Your task to perform on an android device: install app "Lyft - Rideshare, Bikes, Scooters & Transit" Image 0: 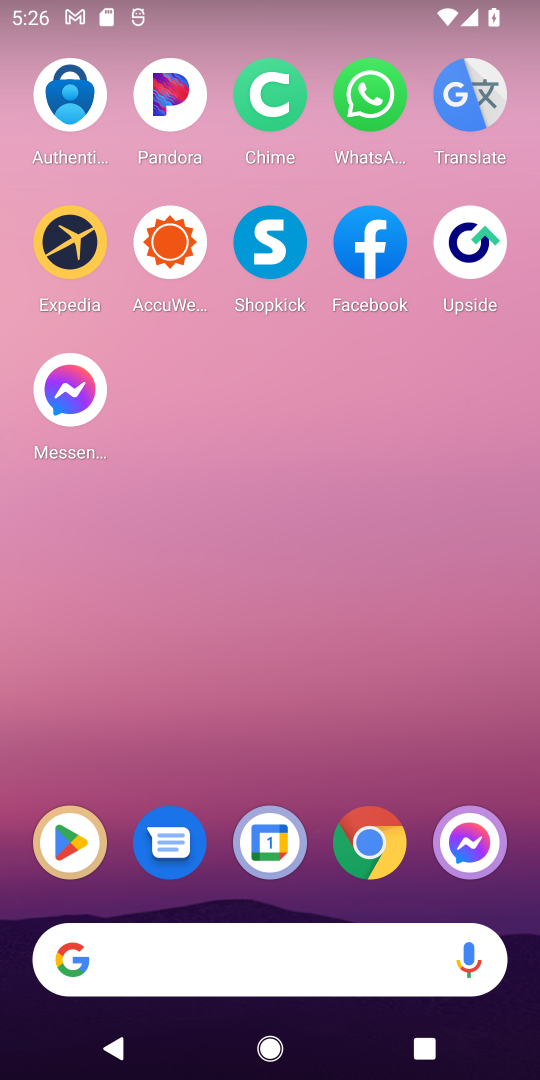
Step 0: drag from (372, 1000) to (299, 116)
Your task to perform on an android device: install app "Lyft - Rideshare, Bikes, Scooters & Transit" Image 1: 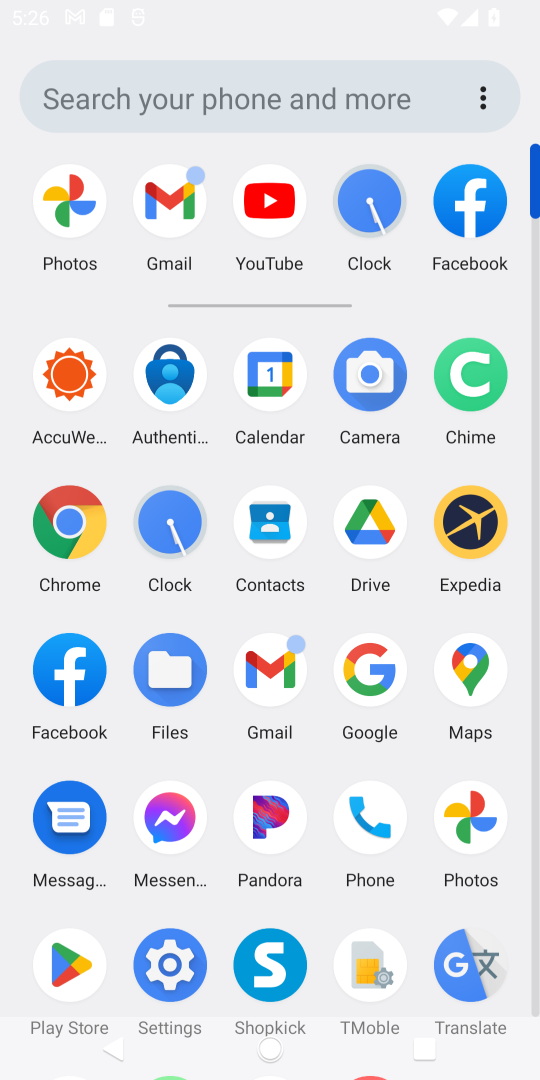
Step 1: drag from (438, 877) to (429, 364)
Your task to perform on an android device: install app "Lyft - Rideshare, Bikes, Scooters & Transit" Image 2: 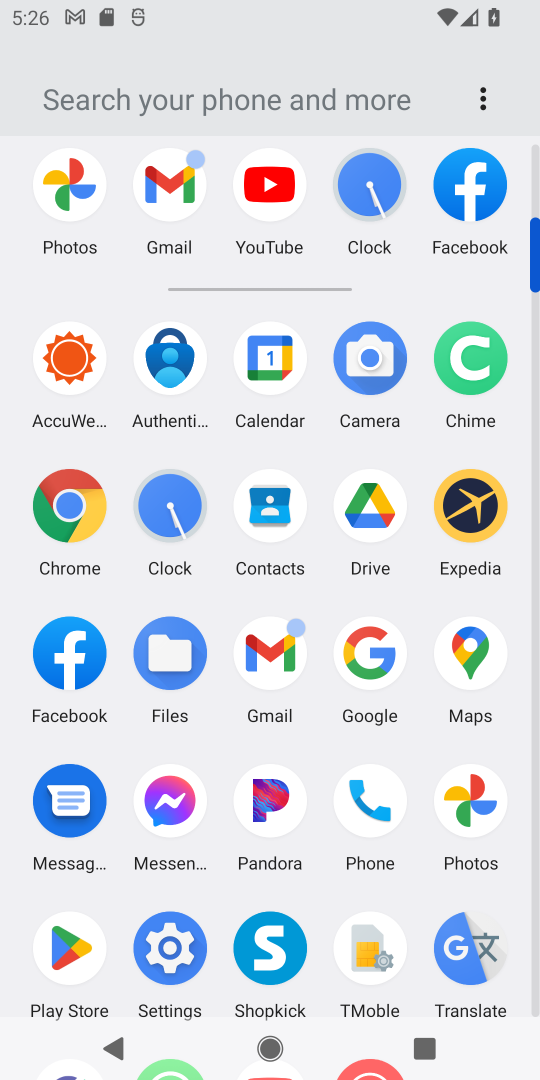
Step 2: drag from (417, 596) to (426, 398)
Your task to perform on an android device: install app "Lyft - Rideshare, Bikes, Scooters & Transit" Image 3: 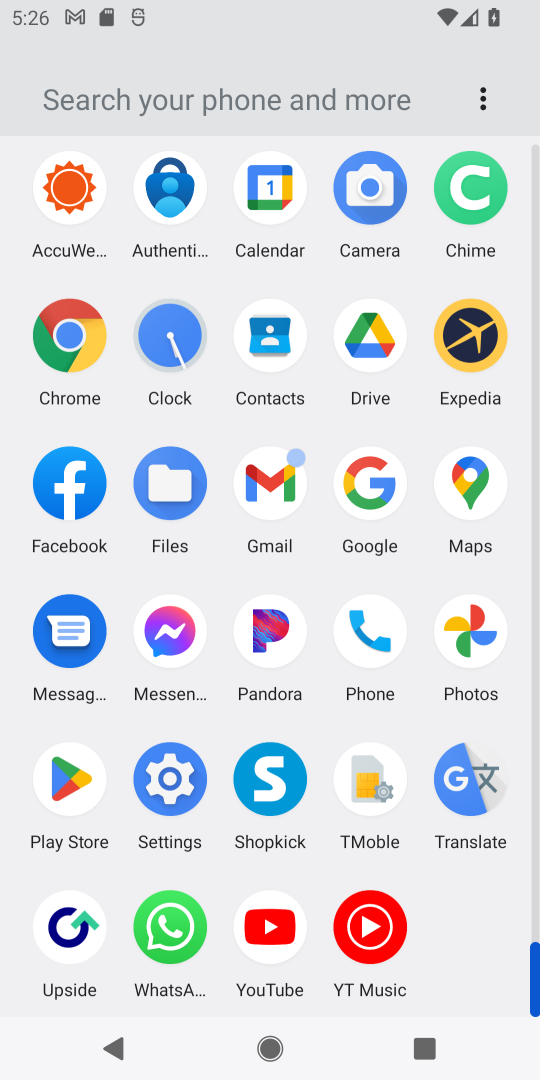
Step 3: drag from (426, 761) to (464, 294)
Your task to perform on an android device: install app "Lyft - Rideshare, Bikes, Scooters & Transit" Image 4: 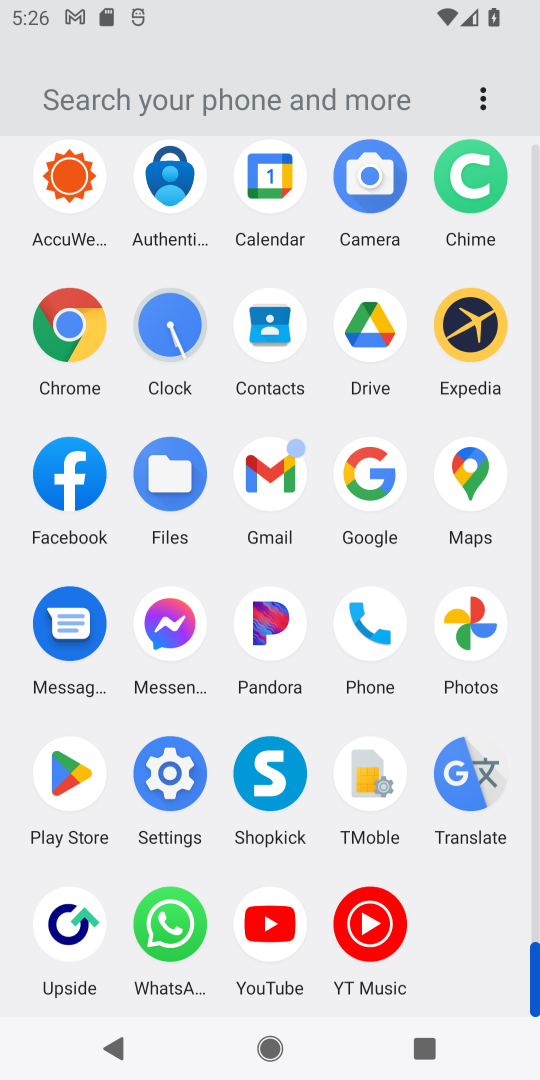
Step 4: drag from (437, 444) to (444, 328)
Your task to perform on an android device: install app "Lyft - Rideshare, Bikes, Scooters & Transit" Image 5: 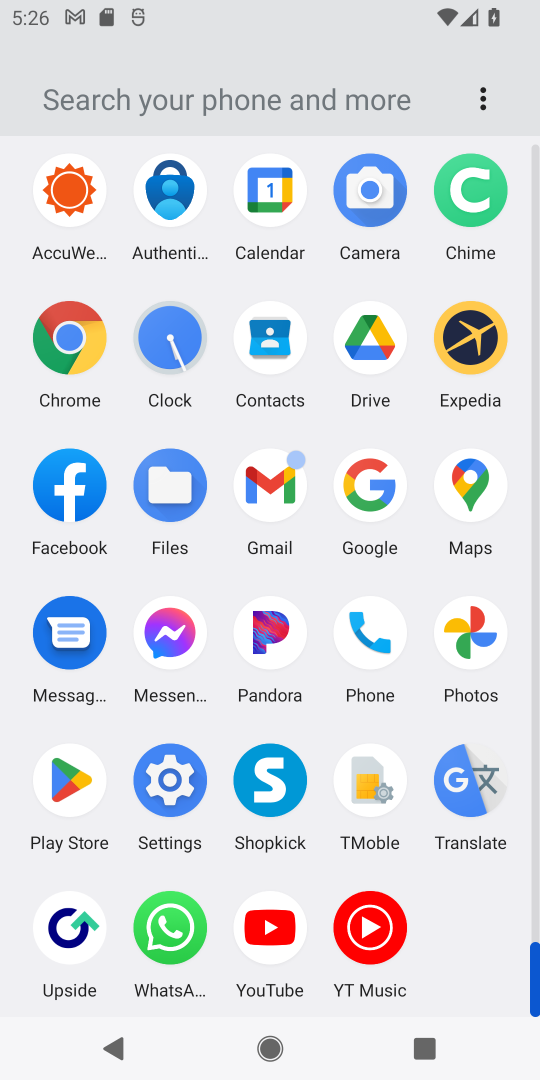
Step 5: click (56, 773)
Your task to perform on an android device: install app "Lyft - Rideshare, Bikes, Scooters & Transit" Image 6: 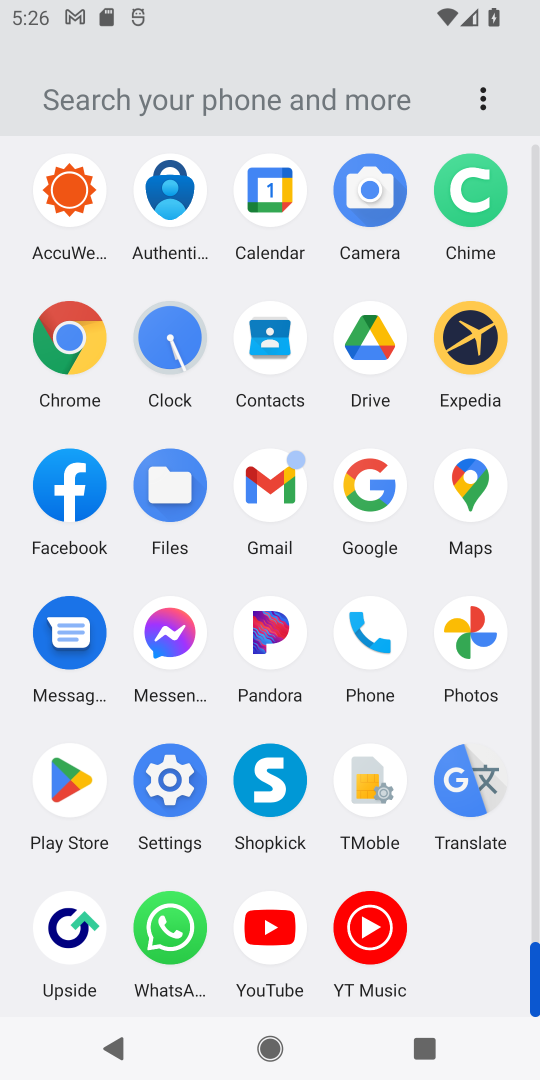
Step 6: click (75, 774)
Your task to perform on an android device: install app "Lyft - Rideshare, Bikes, Scooters & Transit" Image 7: 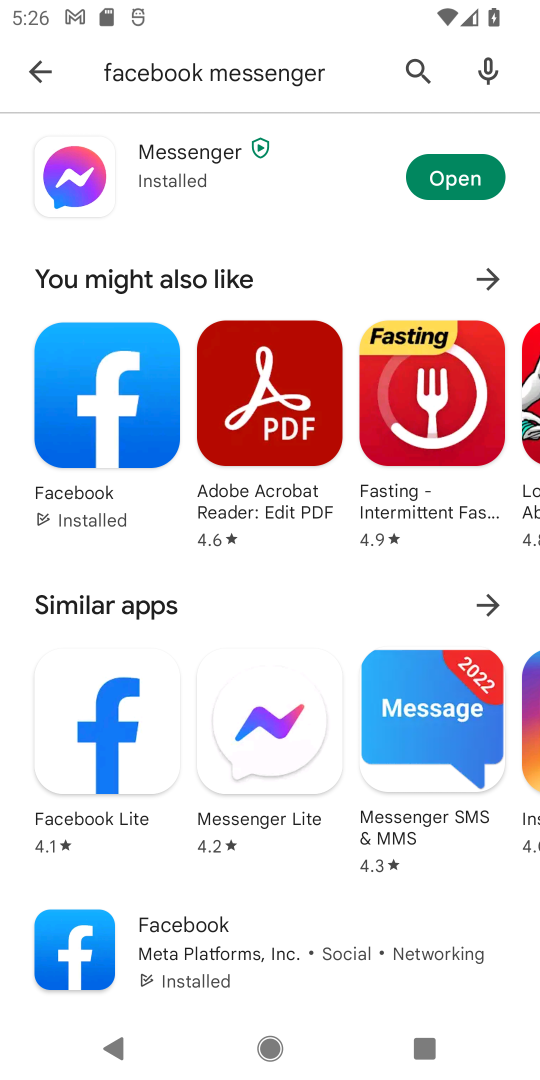
Step 7: click (61, 773)
Your task to perform on an android device: install app "Lyft - Rideshare, Bikes, Scooters & Transit" Image 8: 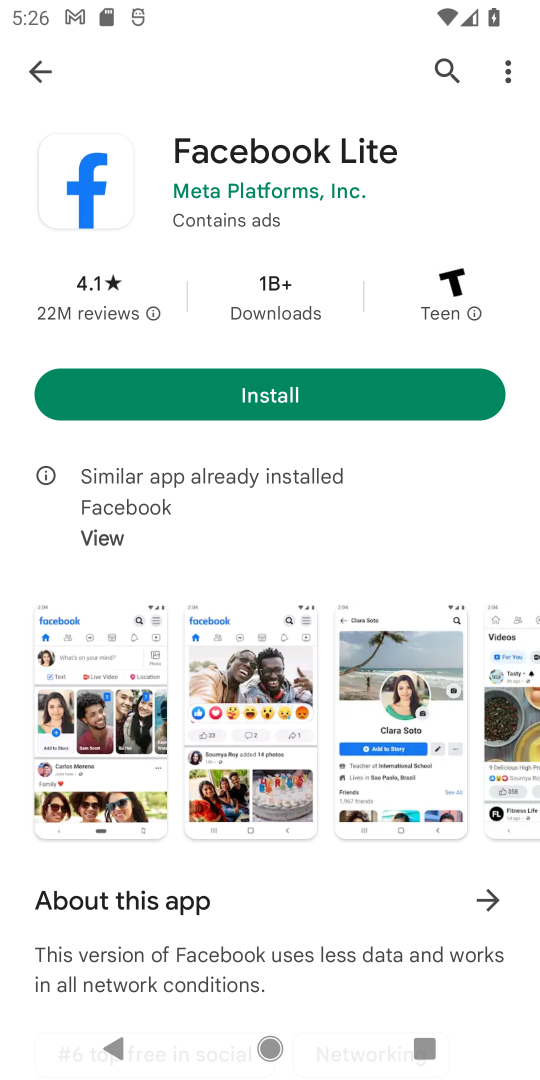
Step 8: click (38, 74)
Your task to perform on an android device: install app "Lyft - Rideshare, Bikes, Scooters & Transit" Image 9: 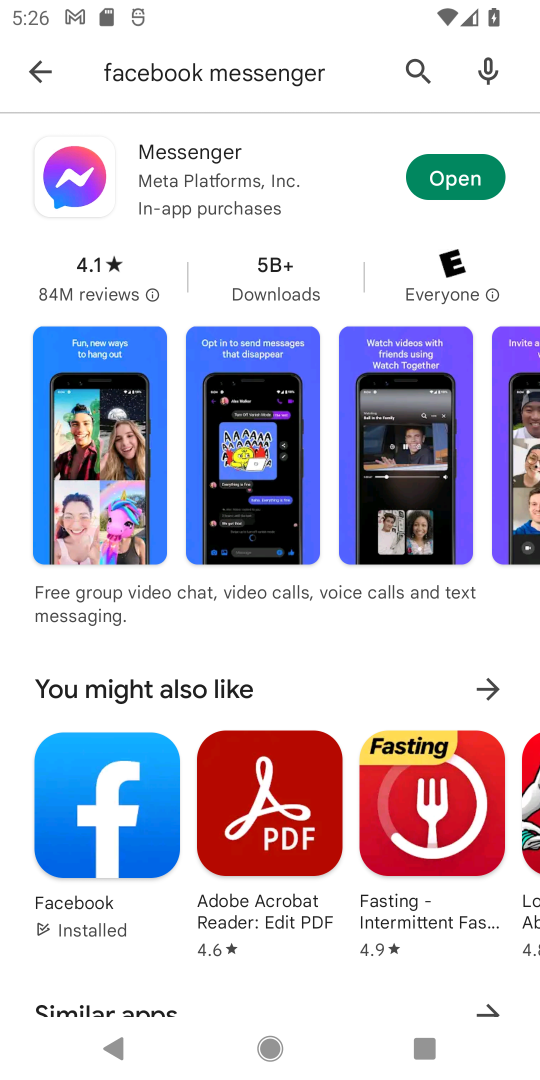
Step 9: click (120, 67)
Your task to perform on an android device: install app "Lyft - Rideshare, Bikes, Scooters & Transit" Image 10: 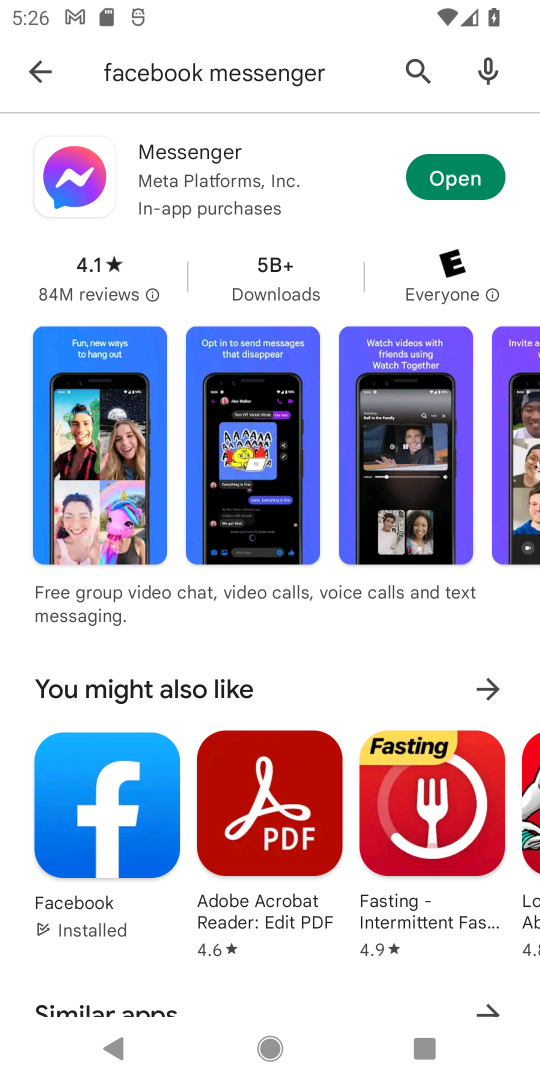
Step 10: click (121, 67)
Your task to perform on an android device: install app "Lyft - Rideshare, Bikes, Scooters & Transit" Image 11: 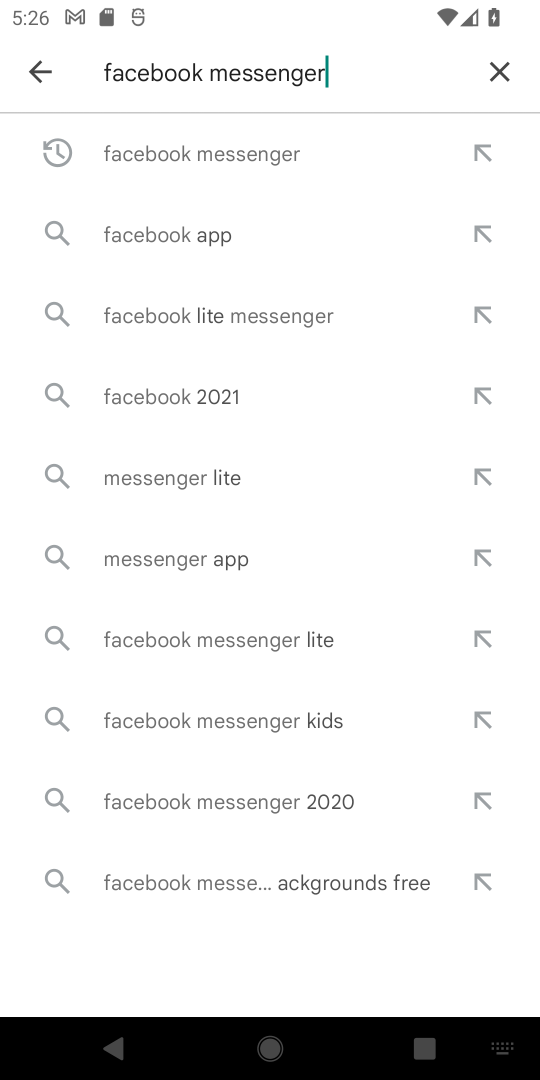
Step 11: click (121, 78)
Your task to perform on an android device: install app "Lyft - Rideshare, Bikes, Scooters & Transit" Image 12: 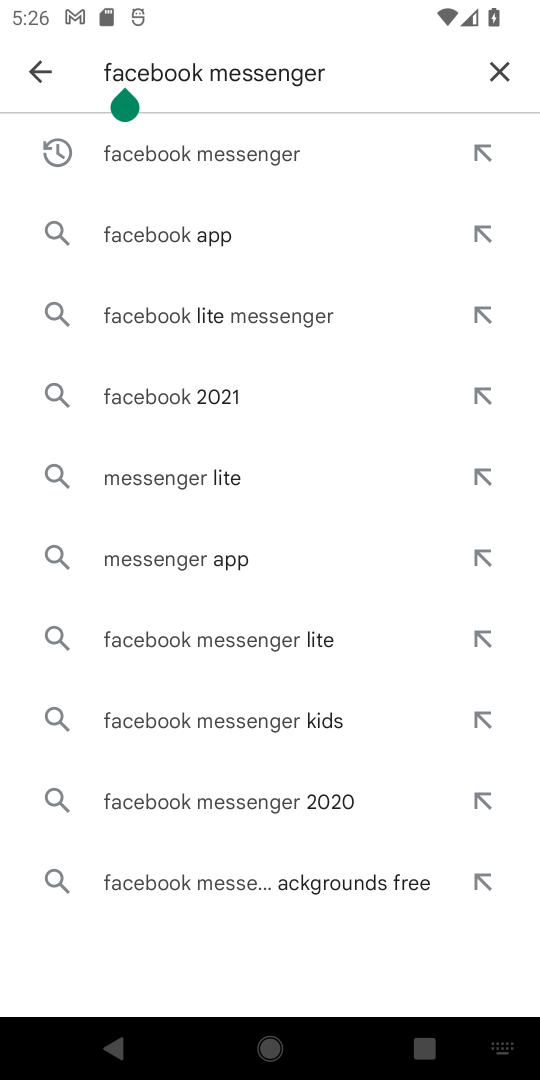
Step 12: click (489, 65)
Your task to perform on an android device: install app "Lyft - Rideshare, Bikes, Scooters & Transit" Image 13: 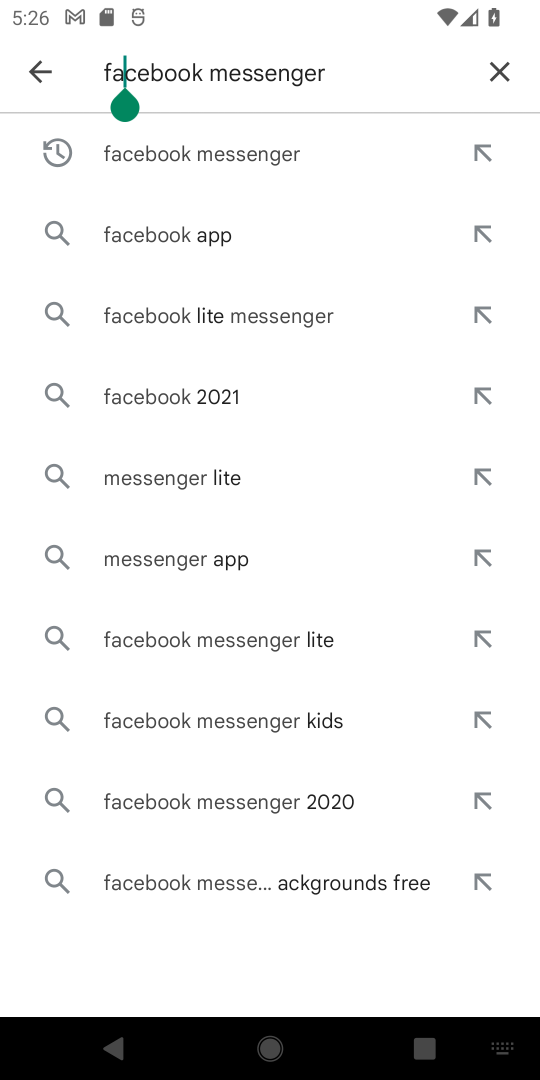
Step 13: click (491, 67)
Your task to perform on an android device: install app "Lyft - Rideshare, Bikes, Scooters & Transit" Image 14: 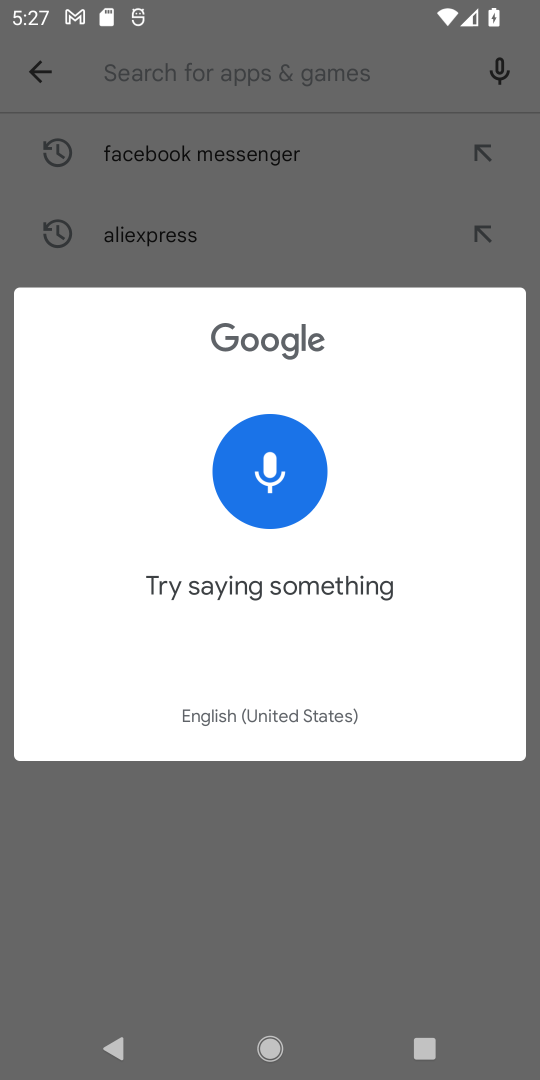
Step 14: click (331, 185)
Your task to perform on an android device: install app "Lyft - Rideshare, Bikes, Scooters & Transit" Image 15: 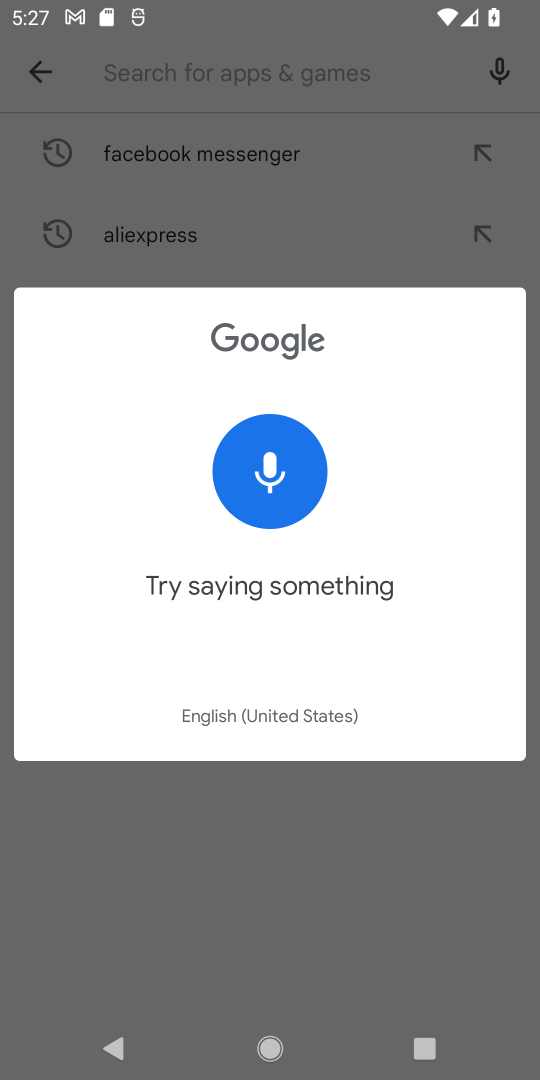
Step 15: click (340, 272)
Your task to perform on an android device: install app "Lyft - Rideshare, Bikes, Scooters & Transit" Image 16: 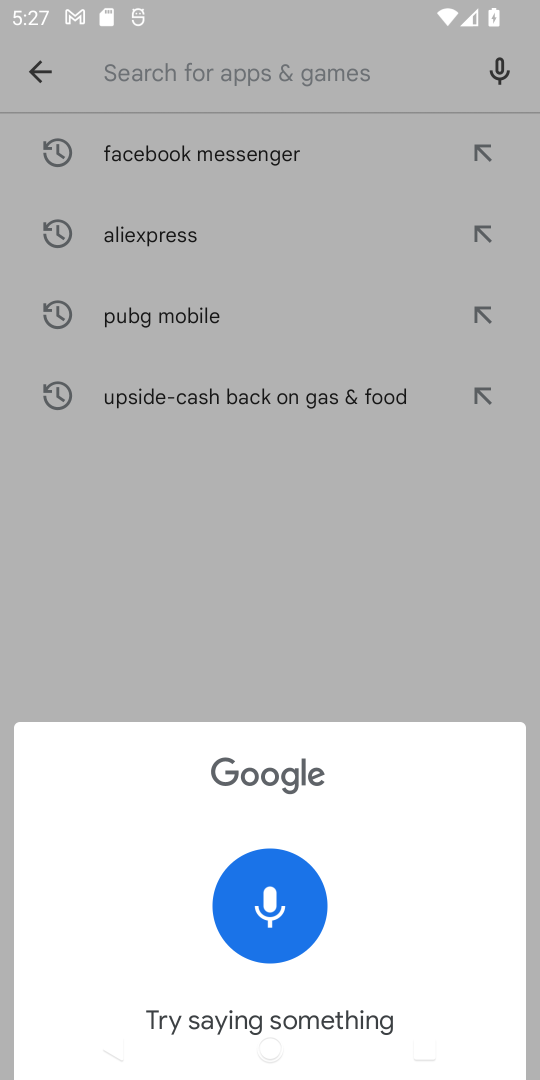
Step 16: click (340, 272)
Your task to perform on an android device: install app "Lyft - Rideshare, Bikes, Scooters & Transit" Image 17: 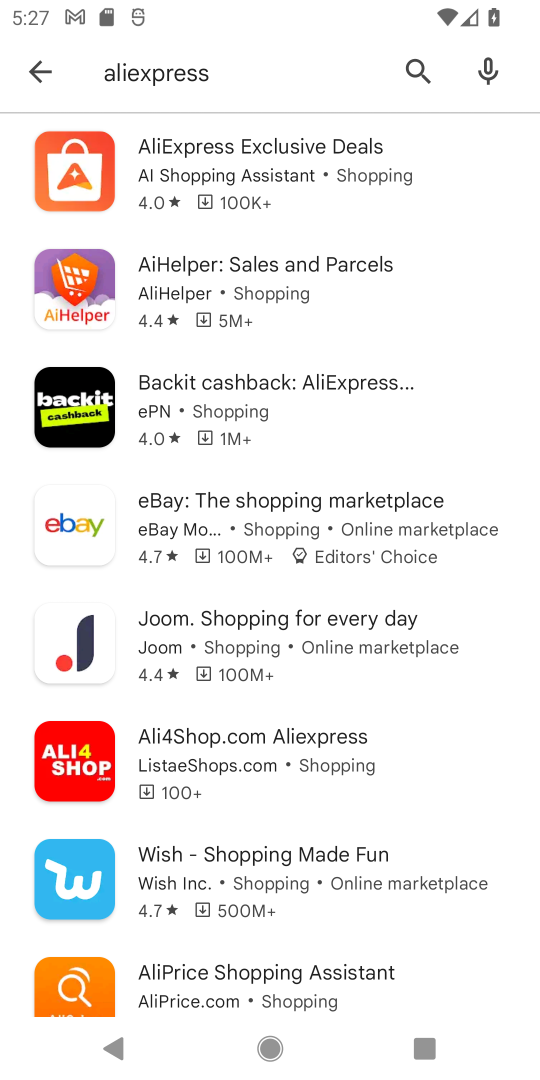
Step 17: click (33, 64)
Your task to perform on an android device: install app "Lyft - Rideshare, Bikes, Scooters & Transit" Image 18: 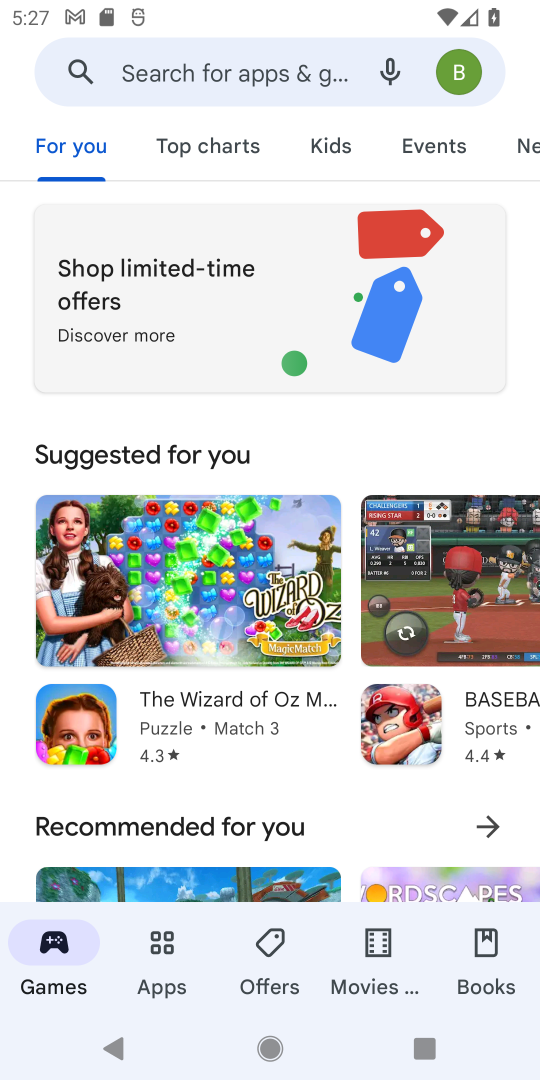
Step 18: click (165, 60)
Your task to perform on an android device: install app "Lyft - Rideshare, Bikes, Scooters & Transit" Image 19: 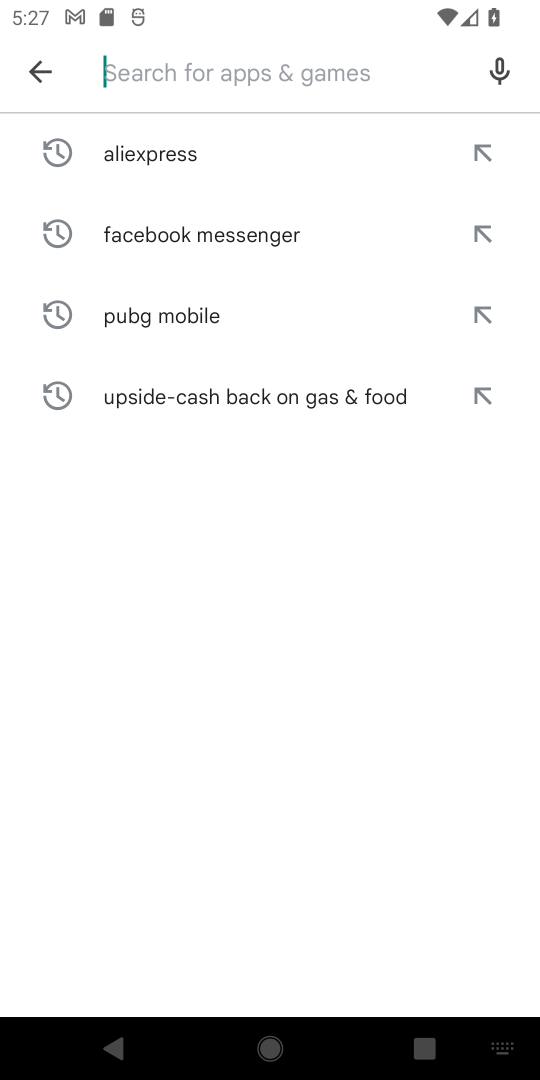
Step 19: type "Lyt- Rideshare, Bikes, Scooters & Transit"
Your task to perform on an android device: install app "Lyft - Rideshare, Bikes, Scooters & Transit" Image 20: 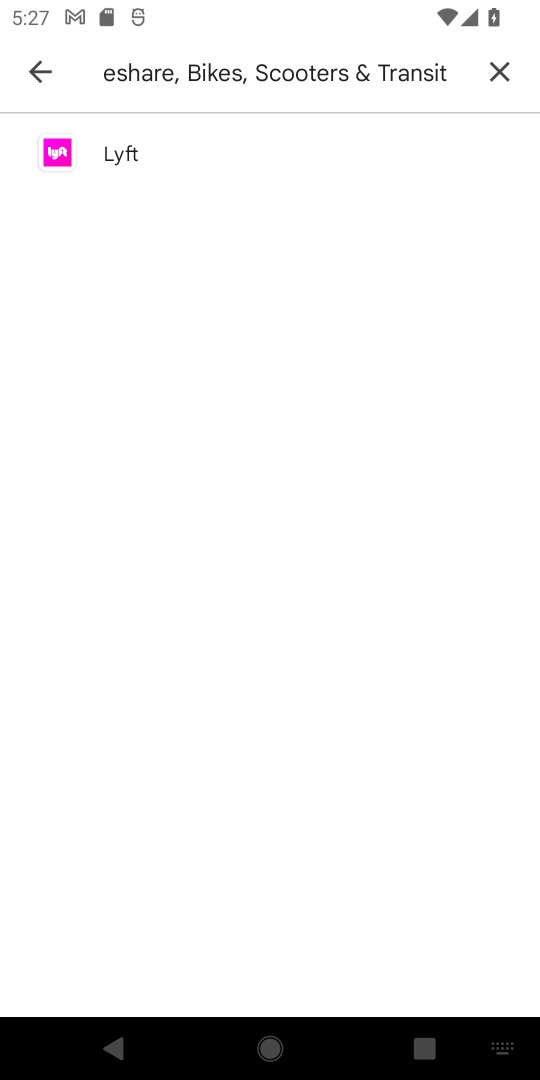
Step 20: click (120, 148)
Your task to perform on an android device: install app "Lyft - Rideshare, Bikes, Scooters & Transit" Image 21: 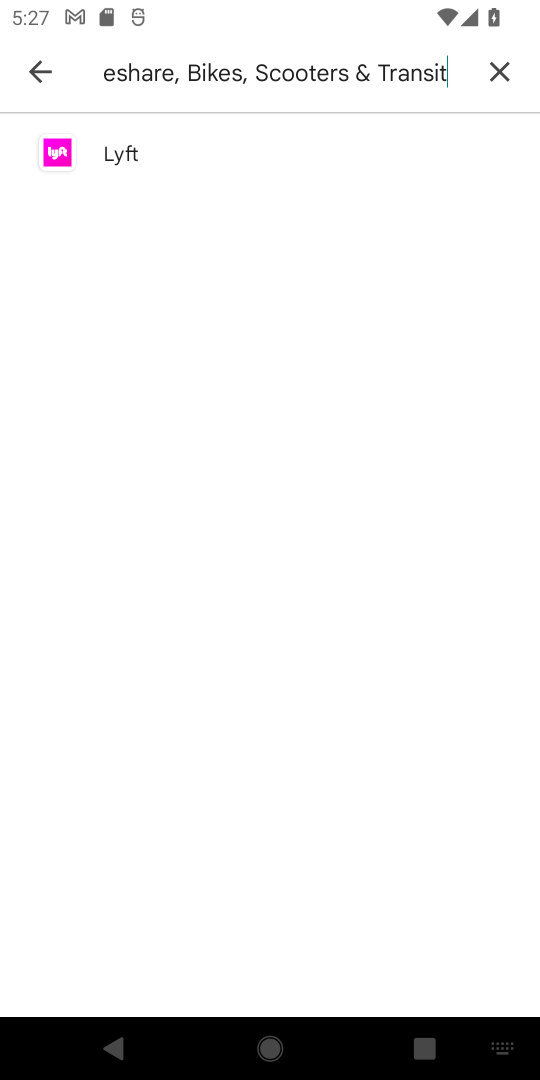
Step 21: click (119, 149)
Your task to perform on an android device: install app "Lyft - Rideshare, Bikes, Scooters & Transit" Image 22: 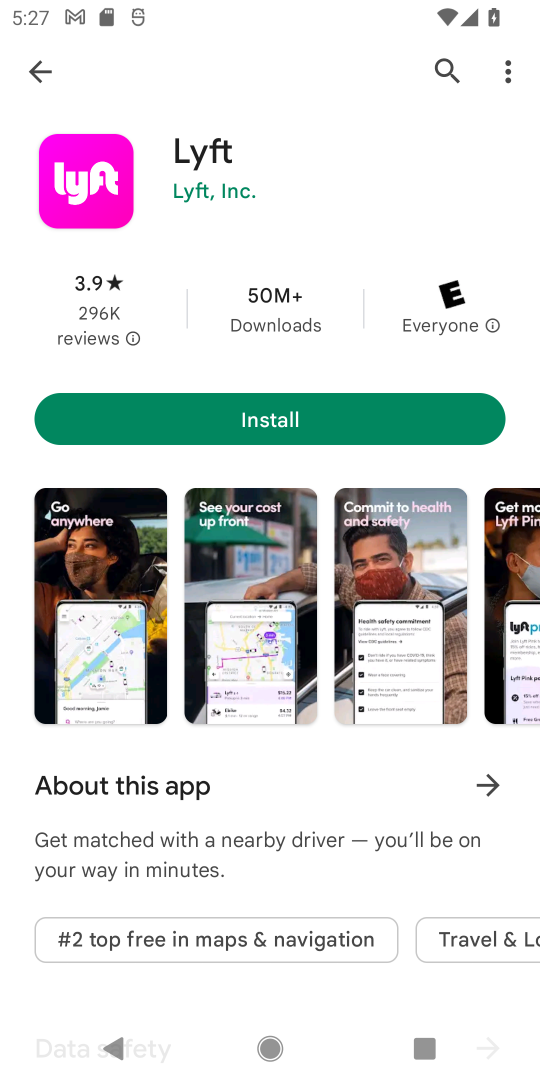
Step 22: click (295, 418)
Your task to perform on an android device: install app "Lyft - Rideshare, Bikes, Scooters & Transit" Image 23: 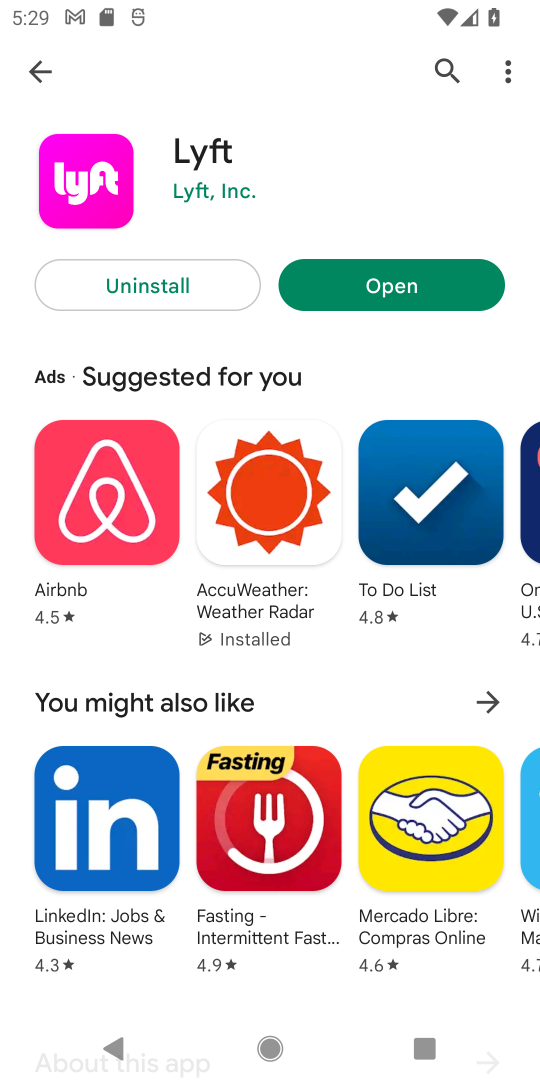
Step 23: click (419, 299)
Your task to perform on an android device: install app "Lyft - Rideshare, Bikes, Scooters & Transit" Image 24: 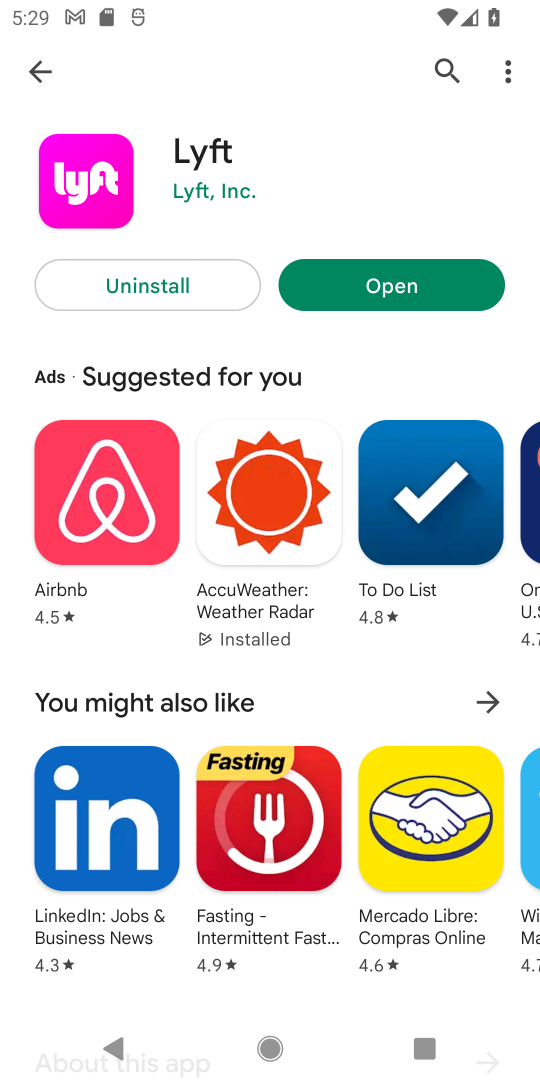
Step 24: click (413, 299)
Your task to perform on an android device: install app "Lyft - Rideshare, Bikes, Scooters & Transit" Image 25: 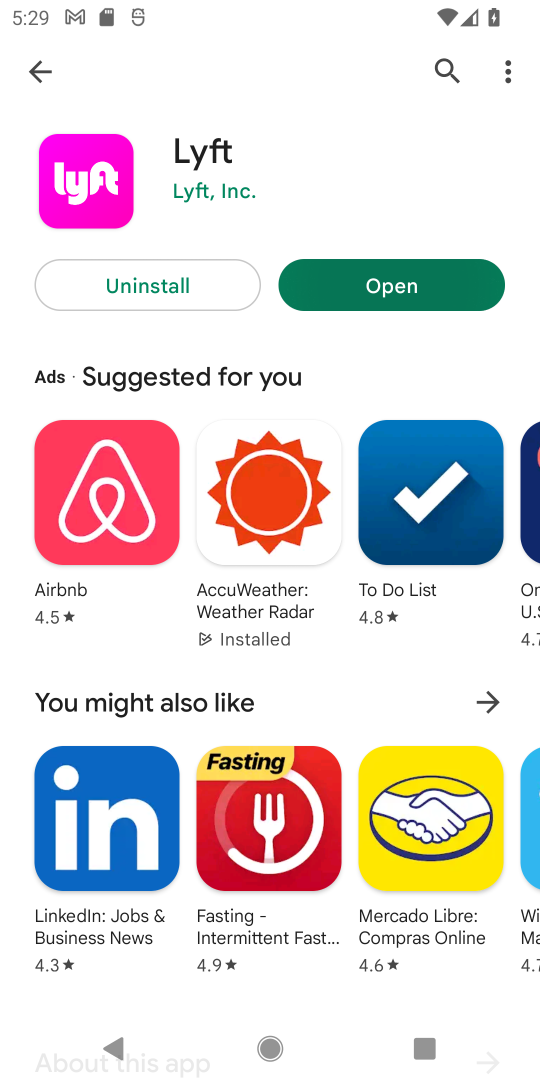
Step 25: click (415, 302)
Your task to perform on an android device: install app "Lyft - Rideshare, Bikes, Scooters & Transit" Image 26: 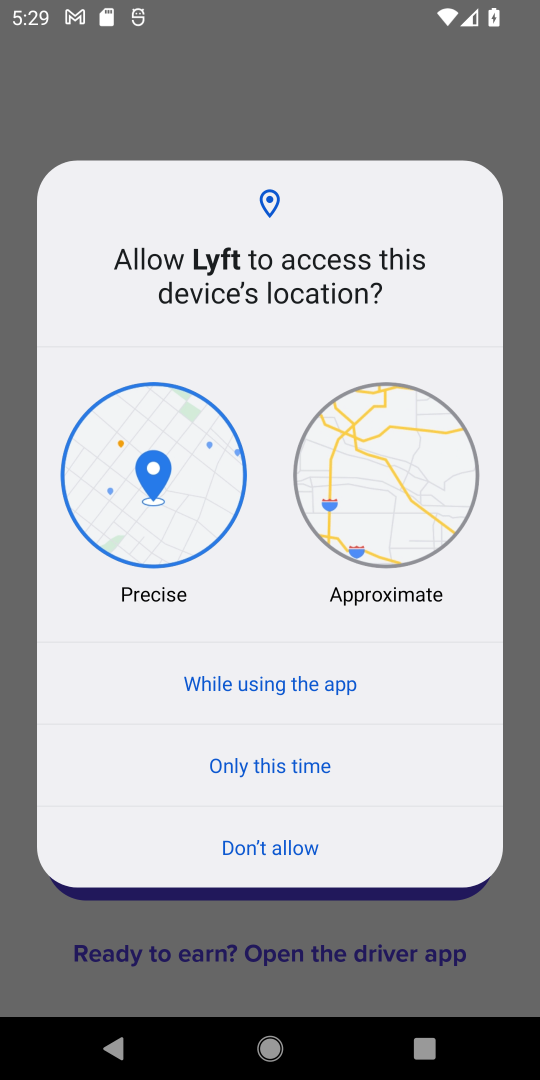
Step 26: click (316, 670)
Your task to perform on an android device: install app "Lyft - Rideshare, Bikes, Scooters & Transit" Image 27: 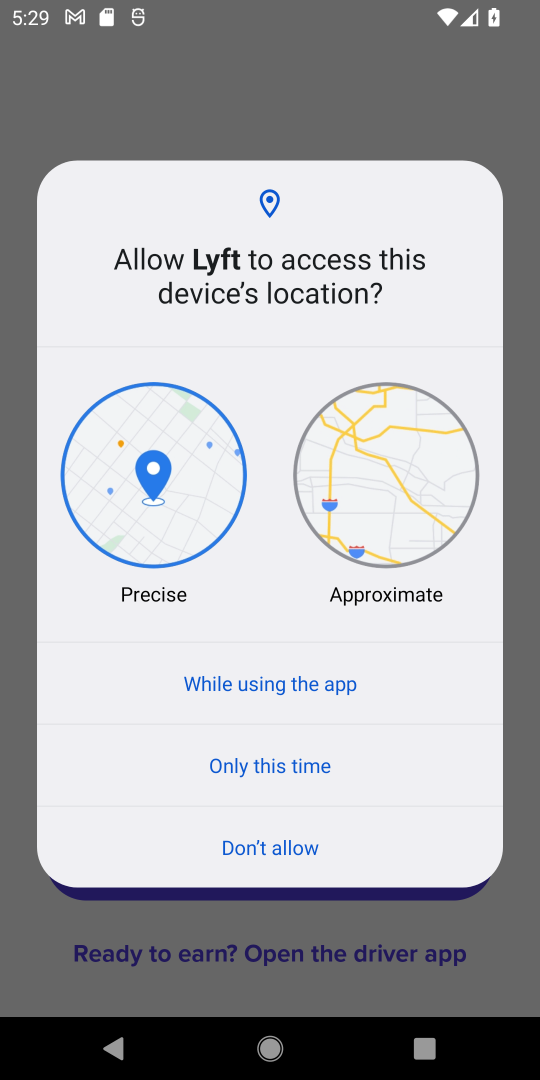
Step 27: click (305, 679)
Your task to perform on an android device: install app "Lyft - Rideshare, Bikes, Scooters & Transit" Image 28: 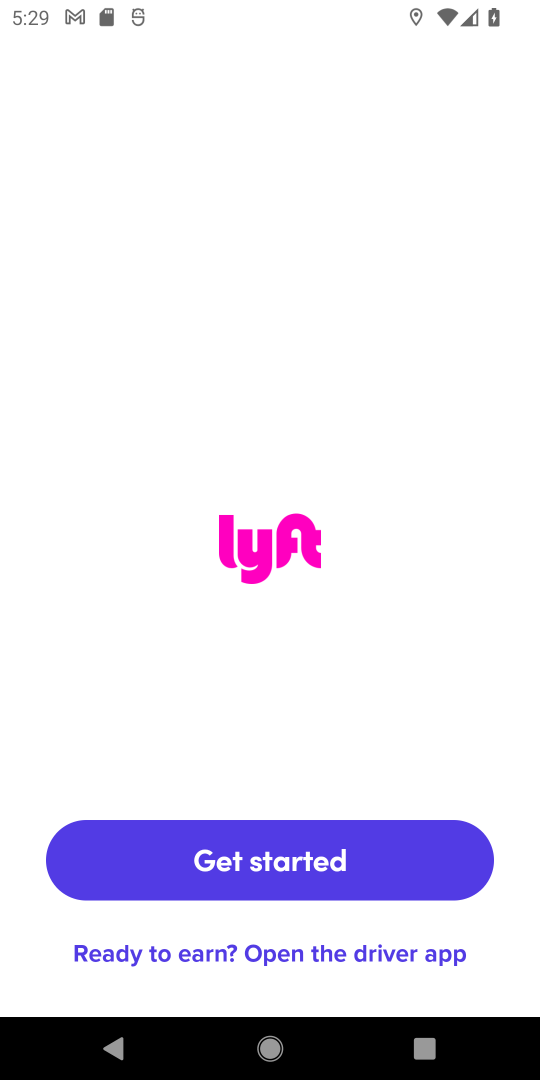
Step 28: click (339, 848)
Your task to perform on an android device: install app "Lyft - Rideshare, Bikes, Scooters & Transit" Image 29: 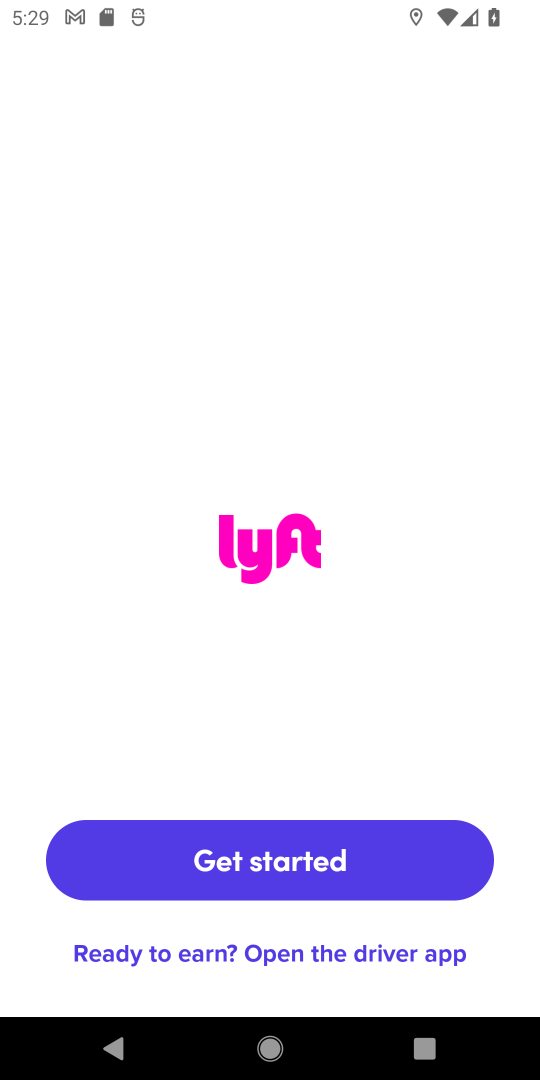
Step 29: click (351, 850)
Your task to perform on an android device: install app "Lyft - Rideshare, Bikes, Scooters & Transit" Image 30: 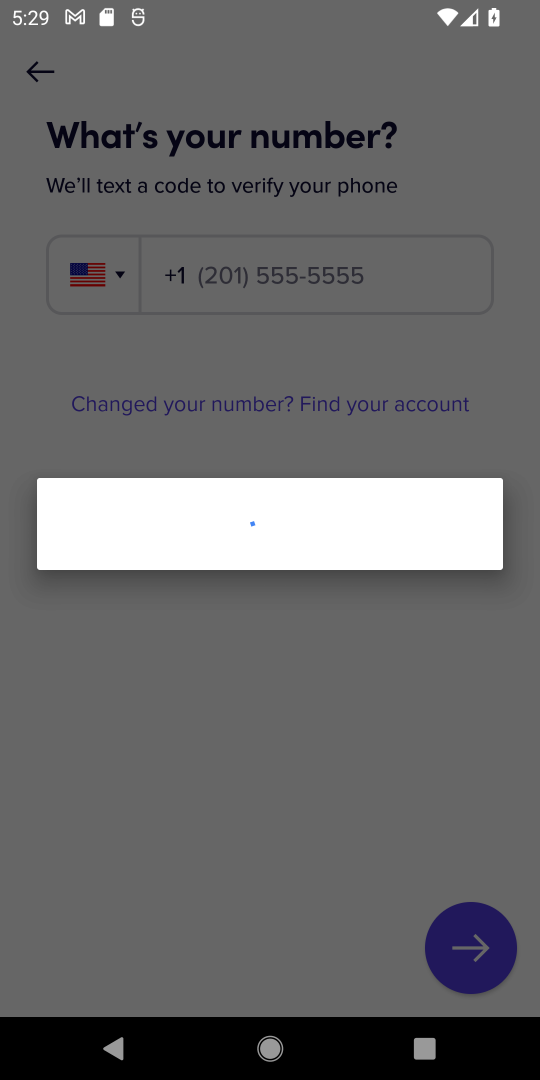
Step 30: task complete